Your task to perform on an android device: see tabs open on other devices in the chrome app Image 0: 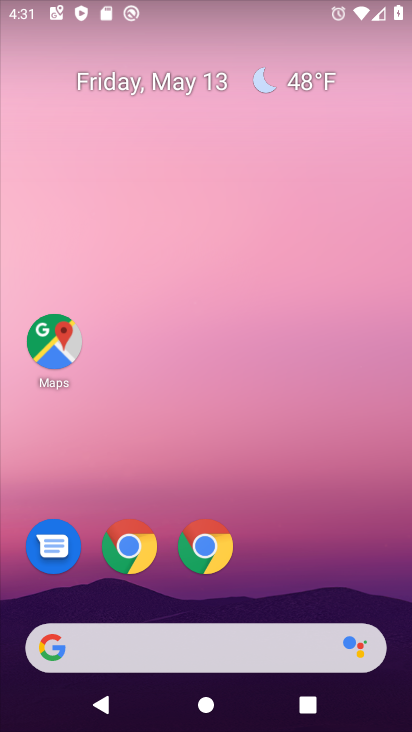
Step 0: drag from (302, 603) to (162, 156)
Your task to perform on an android device: see tabs open on other devices in the chrome app Image 1: 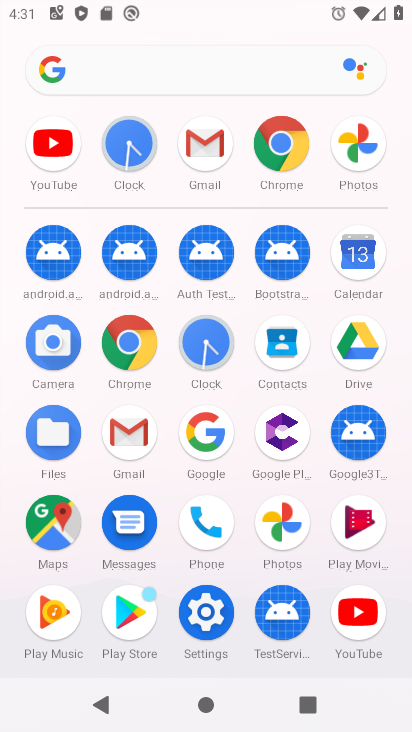
Step 1: click (275, 155)
Your task to perform on an android device: see tabs open on other devices in the chrome app Image 2: 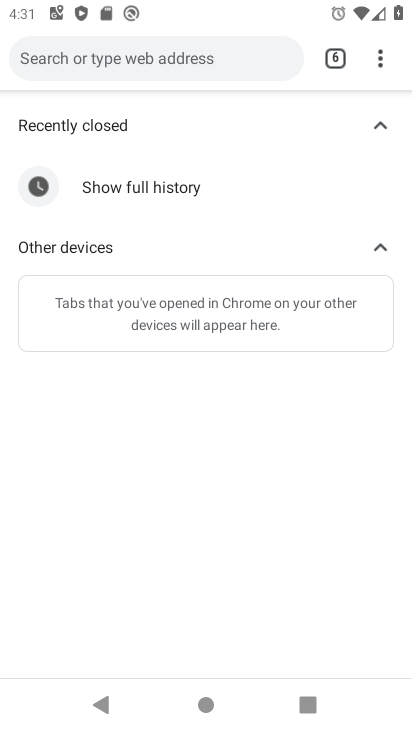
Step 2: drag from (378, 67) to (160, 270)
Your task to perform on an android device: see tabs open on other devices in the chrome app Image 3: 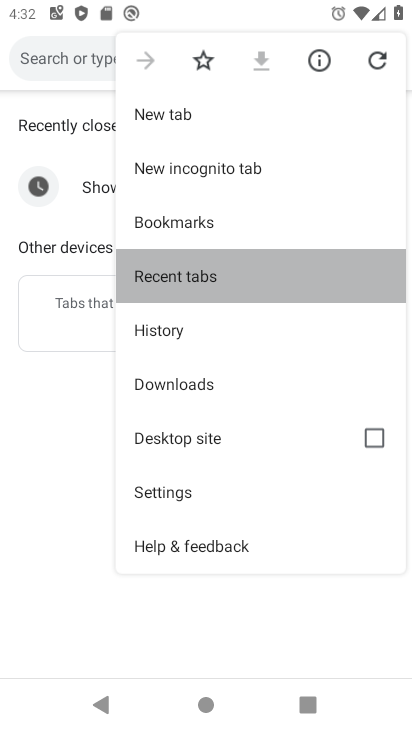
Step 3: click (159, 271)
Your task to perform on an android device: see tabs open on other devices in the chrome app Image 4: 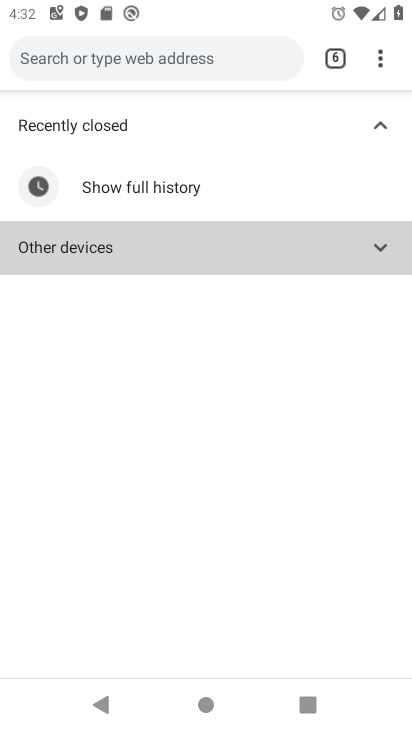
Step 4: click (161, 270)
Your task to perform on an android device: see tabs open on other devices in the chrome app Image 5: 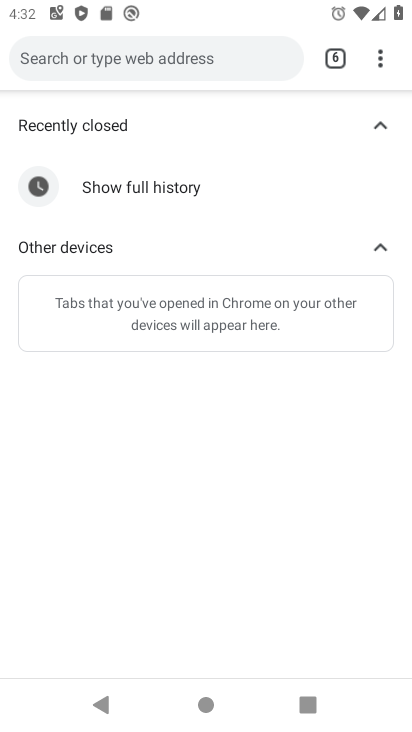
Step 5: task complete